Your task to perform on an android device: toggle show notifications on the lock screen Image 0: 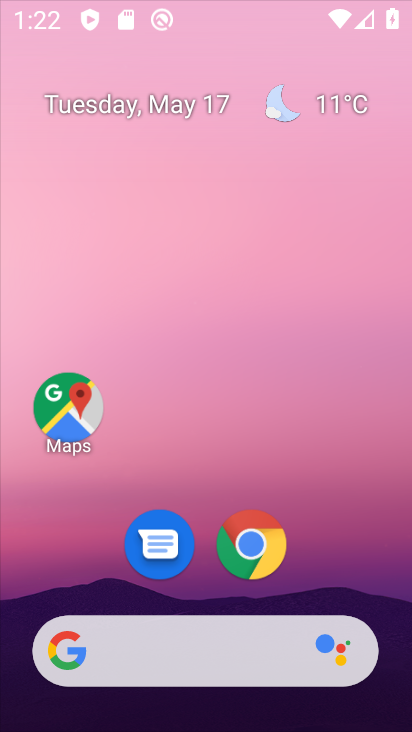
Step 0: press home button
Your task to perform on an android device: toggle show notifications on the lock screen Image 1: 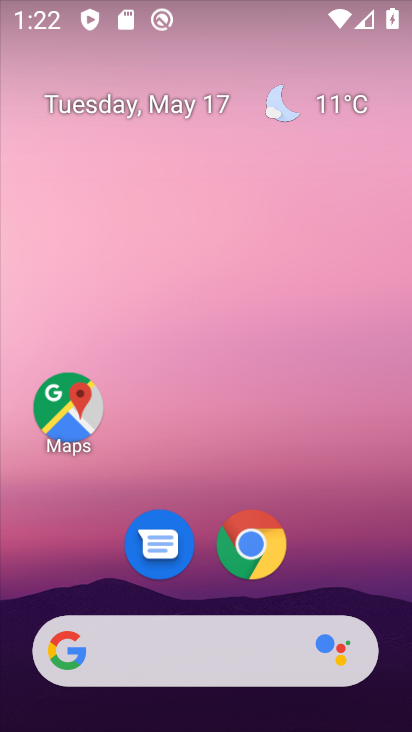
Step 1: drag from (337, 549) to (363, 3)
Your task to perform on an android device: toggle show notifications on the lock screen Image 2: 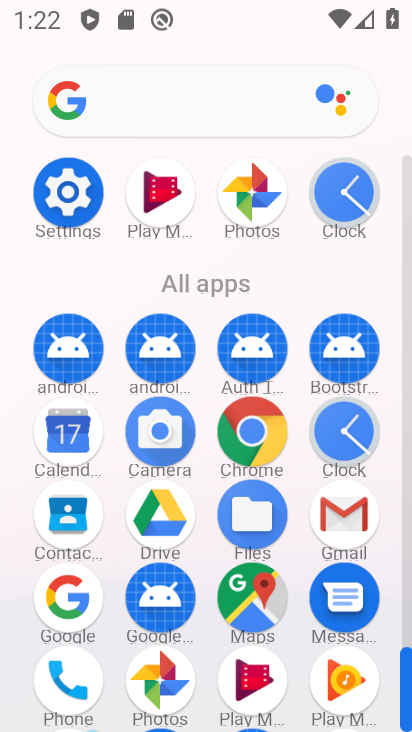
Step 2: click (66, 176)
Your task to perform on an android device: toggle show notifications on the lock screen Image 3: 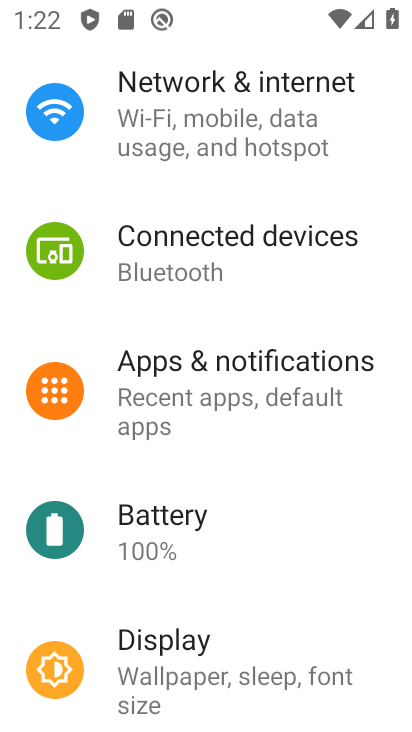
Step 3: click (141, 388)
Your task to perform on an android device: toggle show notifications on the lock screen Image 4: 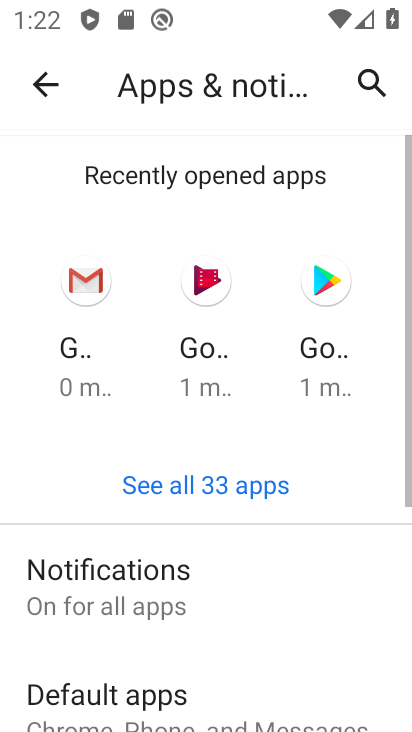
Step 4: click (134, 545)
Your task to perform on an android device: toggle show notifications on the lock screen Image 5: 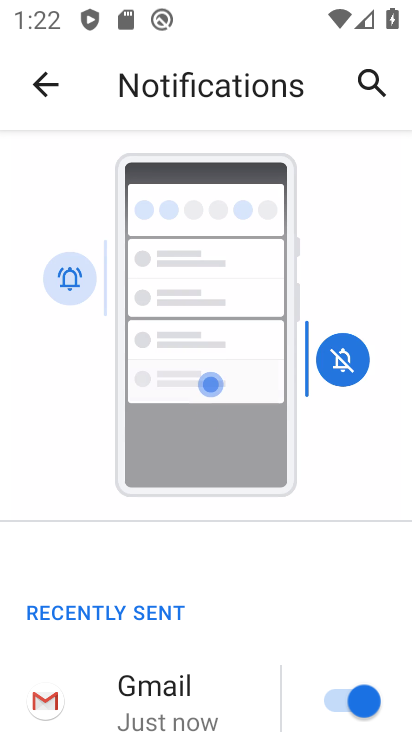
Step 5: drag from (170, 591) to (201, 139)
Your task to perform on an android device: toggle show notifications on the lock screen Image 6: 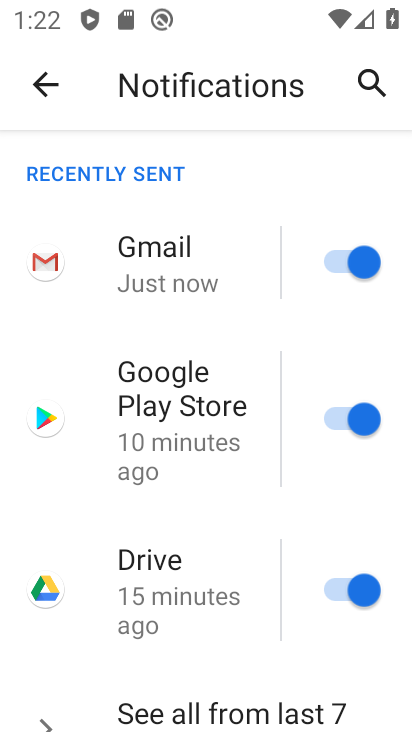
Step 6: drag from (251, 546) to (277, 100)
Your task to perform on an android device: toggle show notifications on the lock screen Image 7: 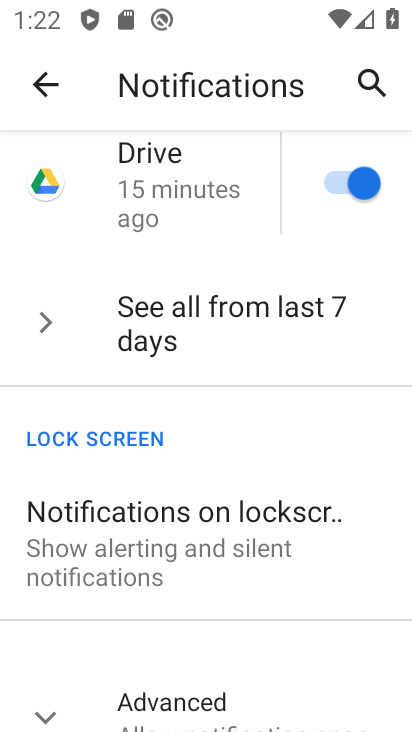
Step 7: click (233, 545)
Your task to perform on an android device: toggle show notifications on the lock screen Image 8: 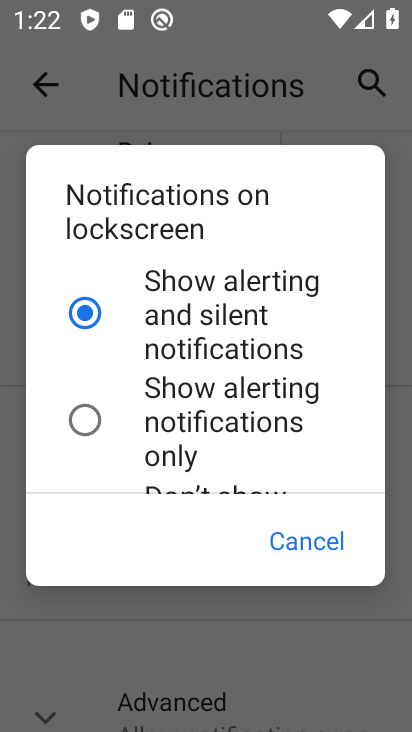
Step 8: click (190, 397)
Your task to perform on an android device: toggle show notifications on the lock screen Image 9: 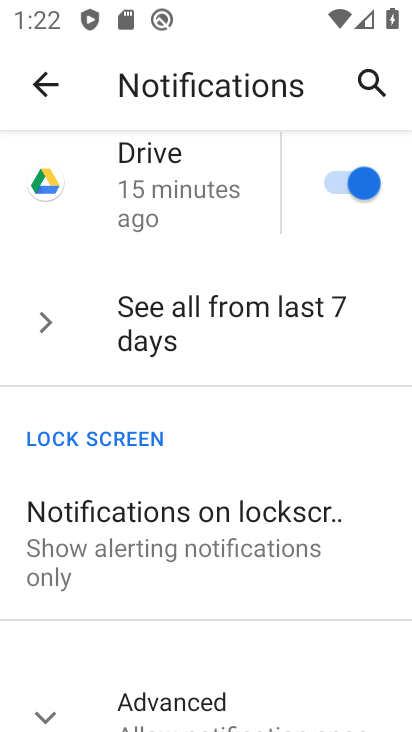
Step 9: task complete